Your task to perform on an android device: Open Youtube and go to the subscriptions tab Image 0: 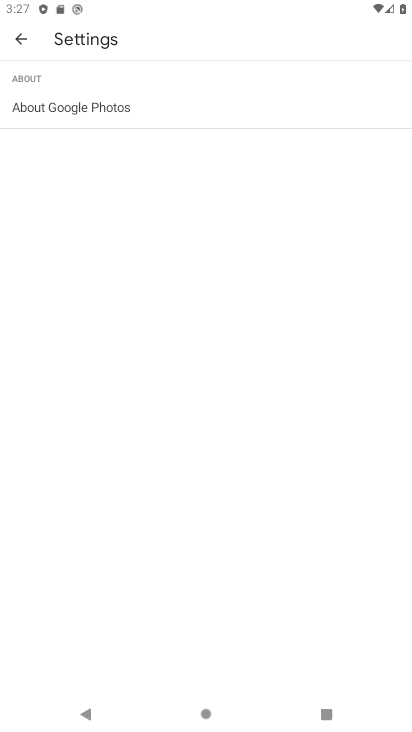
Step 0: press home button
Your task to perform on an android device: Open Youtube and go to the subscriptions tab Image 1: 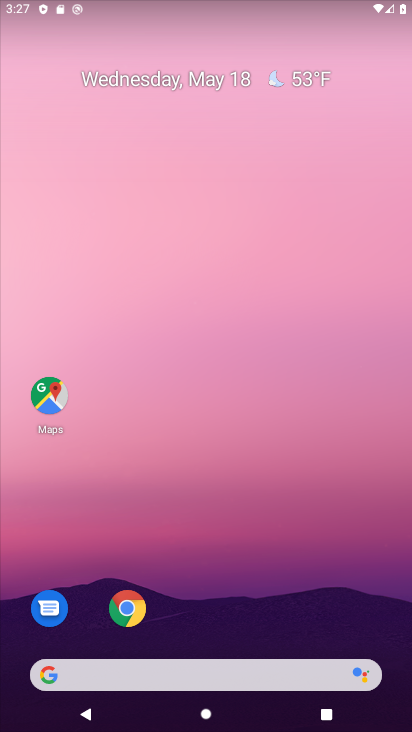
Step 1: drag from (189, 646) to (237, 9)
Your task to perform on an android device: Open Youtube and go to the subscriptions tab Image 2: 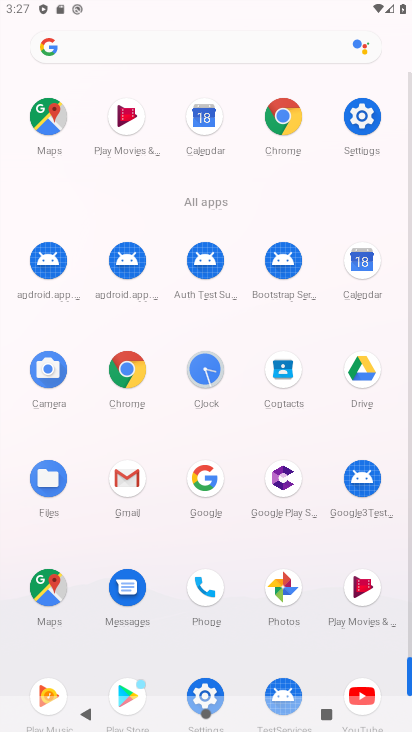
Step 2: click (359, 682)
Your task to perform on an android device: Open Youtube and go to the subscriptions tab Image 3: 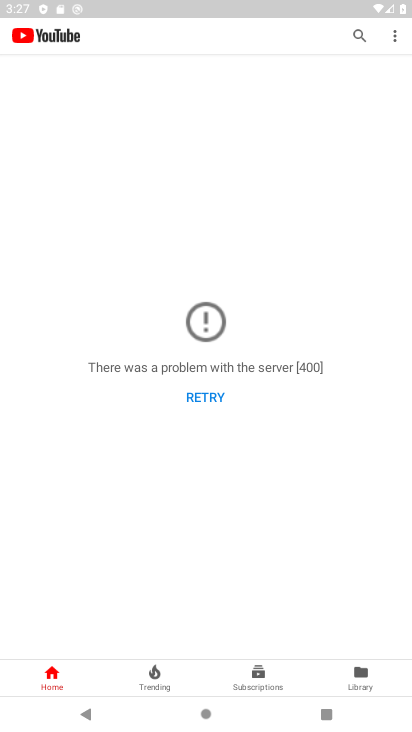
Step 3: click (272, 682)
Your task to perform on an android device: Open Youtube and go to the subscriptions tab Image 4: 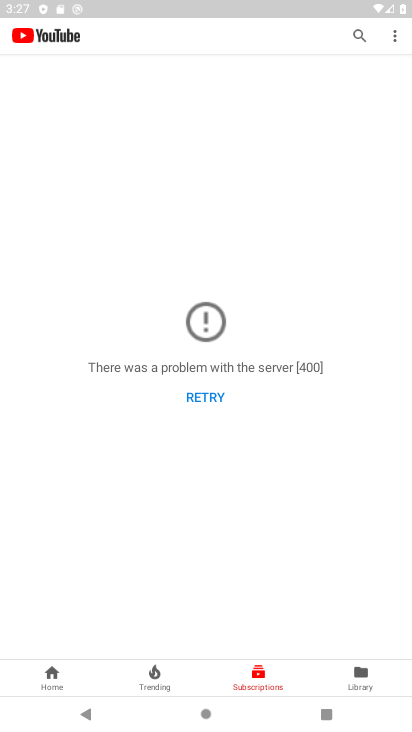
Step 4: click (201, 401)
Your task to perform on an android device: Open Youtube and go to the subscriptions tab Image 5: 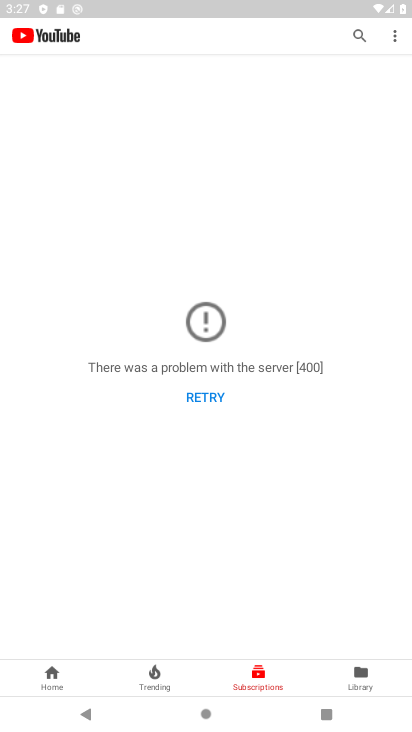
Step 5: click (210, 394)
Your task to perform on an android device: Open Youtube and go to the subscriptions tab Image 6: 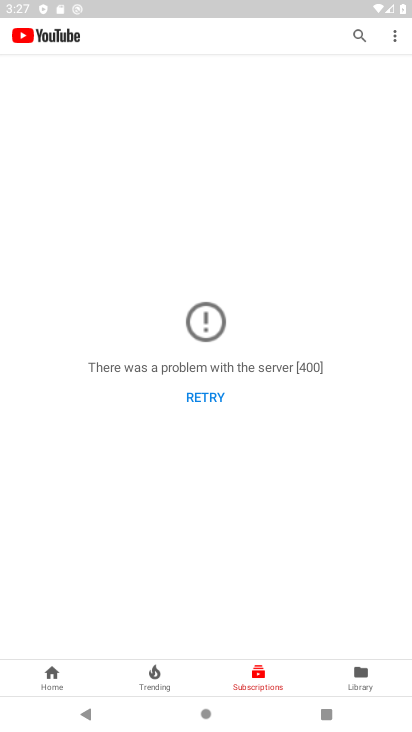
Step 6: click (210, 394)
Your task to perform on an android device: Open Youtube and go to the subscriptions tab Image 7: 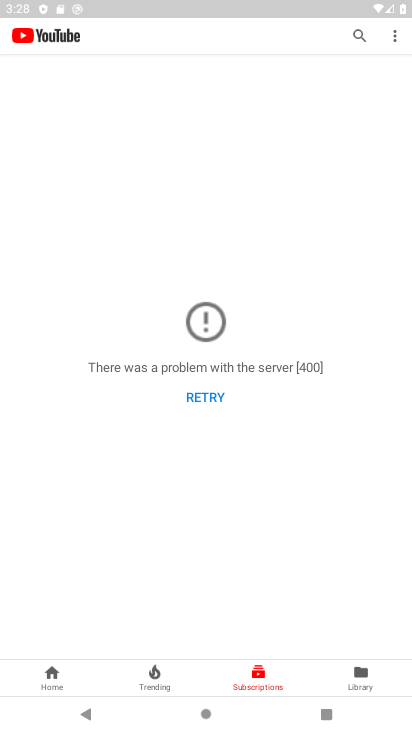
Step 7: click (267, 677)
Your task to perform on an android device: Open Youtube and go to the subscriptions tab Image 8: 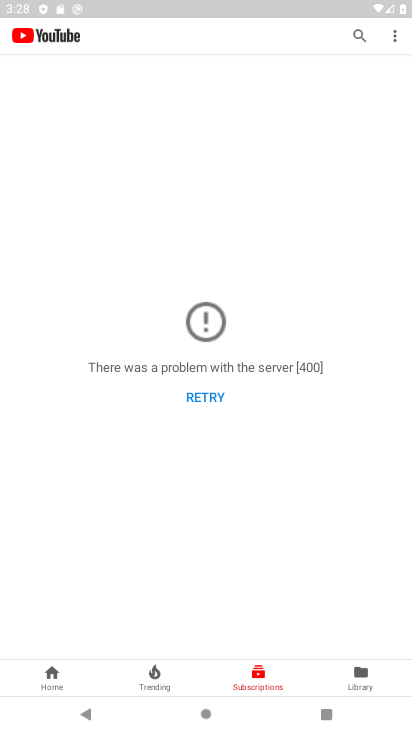
Step 8: task complete